Your task to perform on an android device: open chrome and create a bookmark for the current page Image 0: 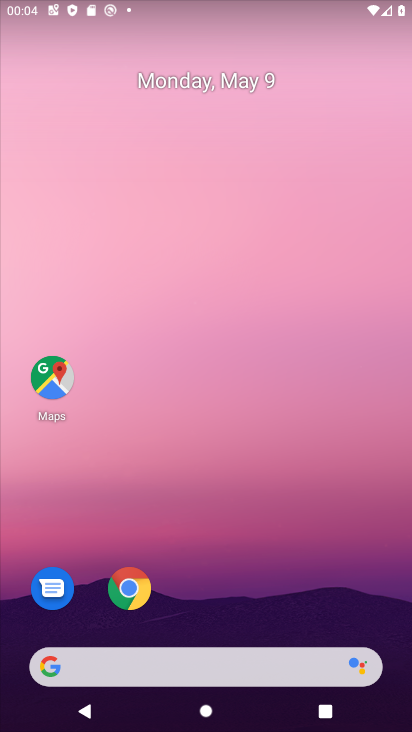
Step 0: click (133, 593)
Your task to perform on an android device: open chrome and create a bookmark for the current page Image 1: 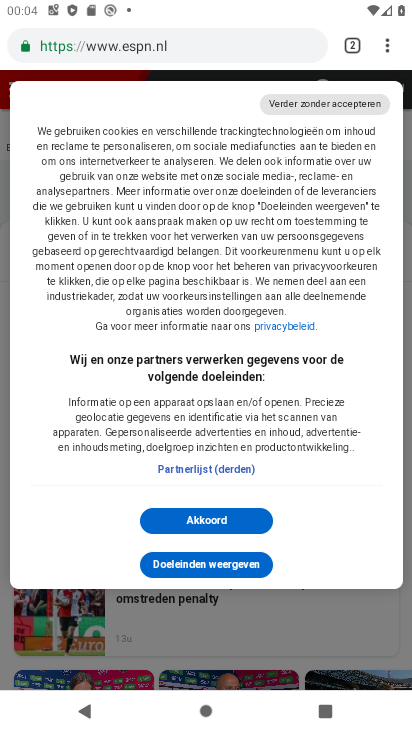
Step 1: click (386, 45)
Your task to perform on an android device: open chrome and create a bookmark for the current page Image 2: 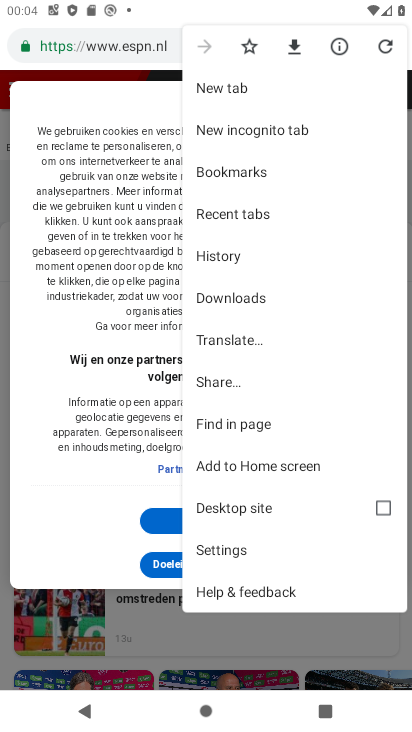
Step 2: click (250, 51)
Your task to perform on an android device: open chrome and create a bookmark for the current page Image 3: 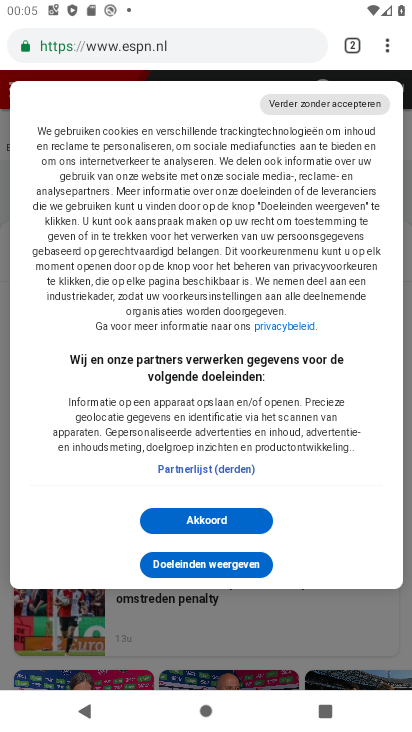
Step 3: task complete